Your task to perform on an android device: Go to display settings Image 0: 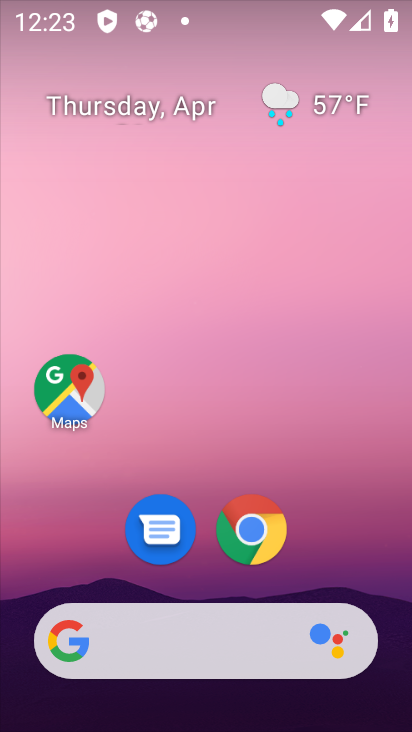
Step 0: drag from (217, 221) to (209, 74)
Your task to perform on an android device: Go to display settings Image 1: 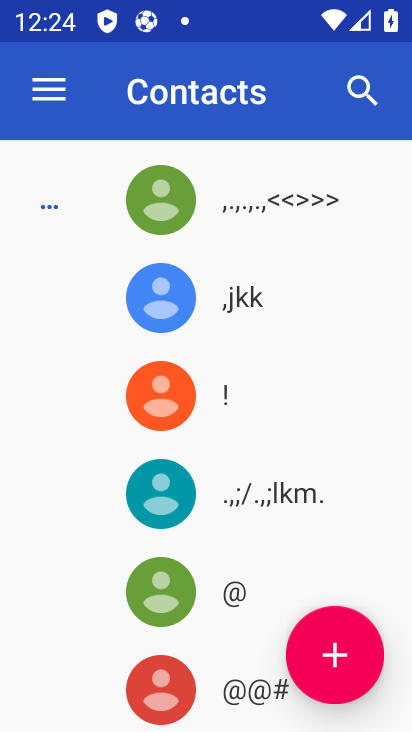
Step 1: press home button
Your task to perform on an android device: Go to display settings Image 2: 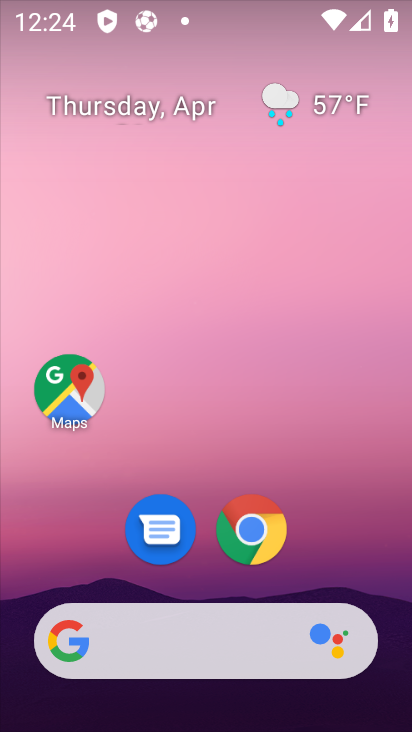
Step 2: drag from (196, 625) to (217, 11)
Your task to perform on an android device: Go to display settings Image 3: 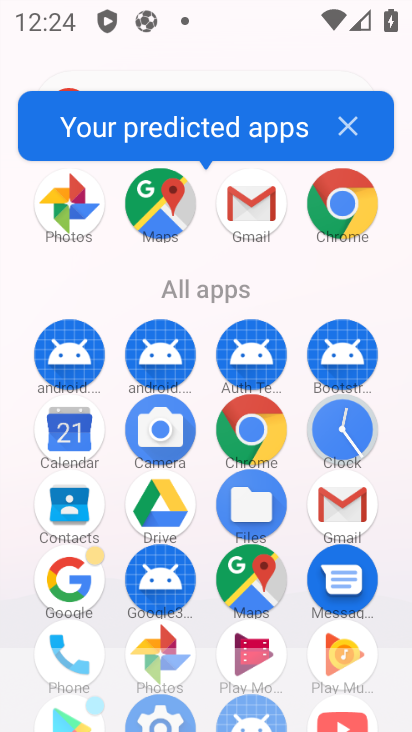
Step 3: drag from (181, 648) to (155, 167)
Your task to perform on an android device: Go to display settings Image 4: 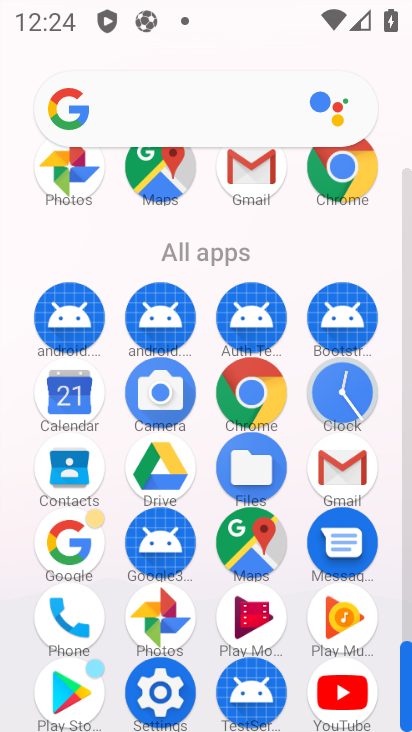
Step 4: click (179, 681)
Your task to perform on an android device: Go to display settings Image 5: 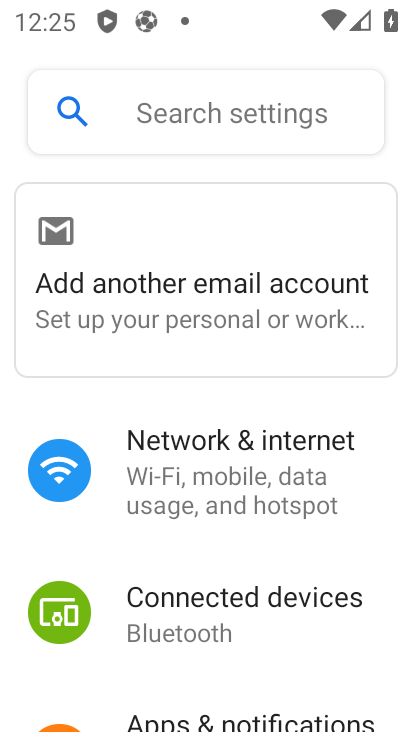
Step 5: drag from (252, 585) to (79, 28)
Your task to perform on an android device: Go to display settings Image 6: 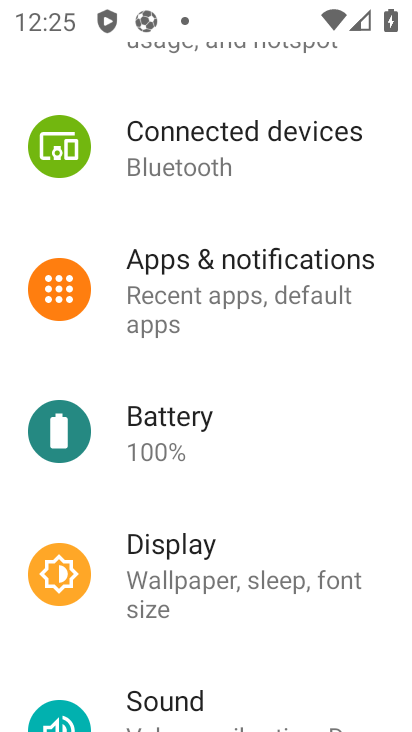
Step 6: click (212, 565)
Your task to perform on an android device: Go to display settings Image 7: 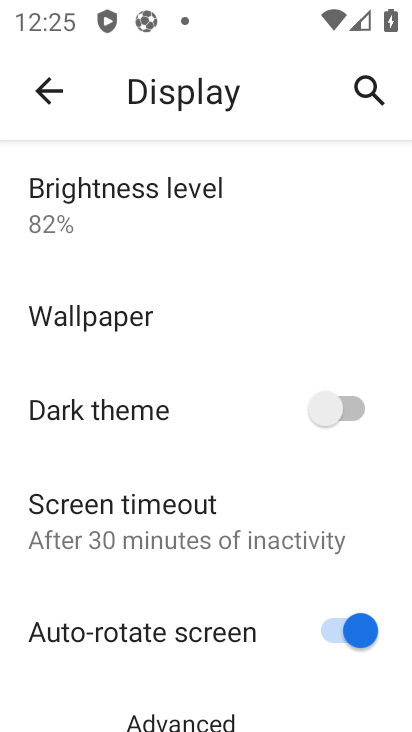
Step 7: task complete